Your task to perform on an android device: toggle airplane mode Image 0: 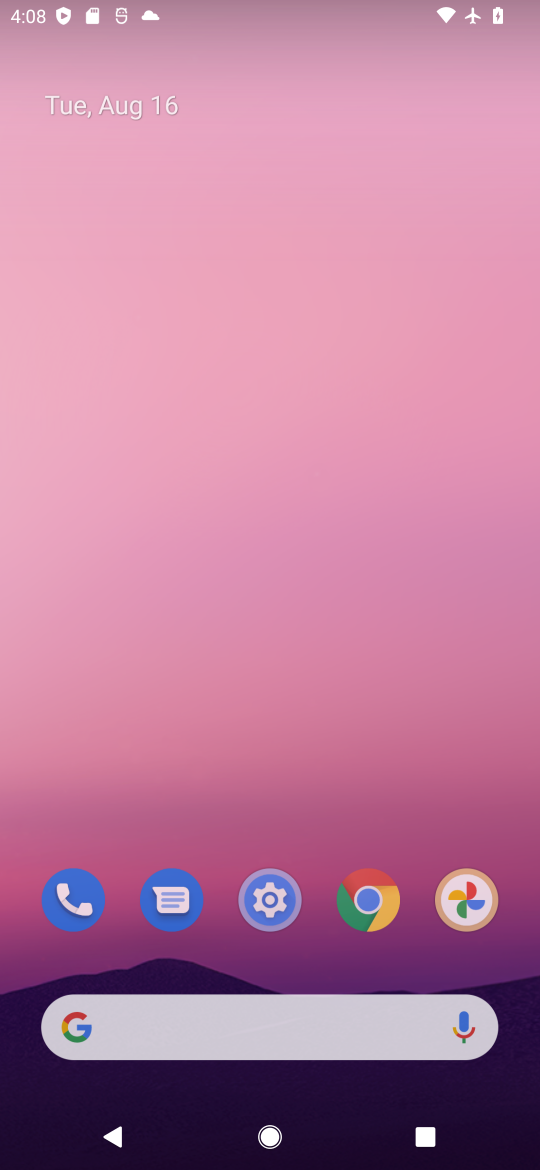
Step 0: press home button
Your task to perform on an android device: toggle airplane mode Image 1: 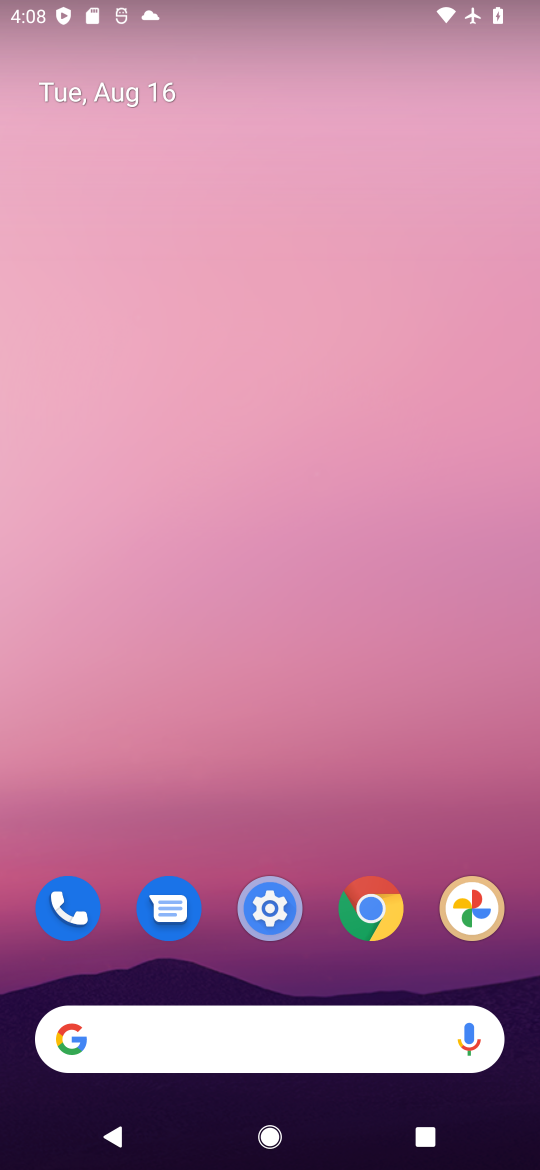
Step 1: drag from (310, 947) to (347, 119)
Your task to perform on an android device: toggle airplane mode Image 2: 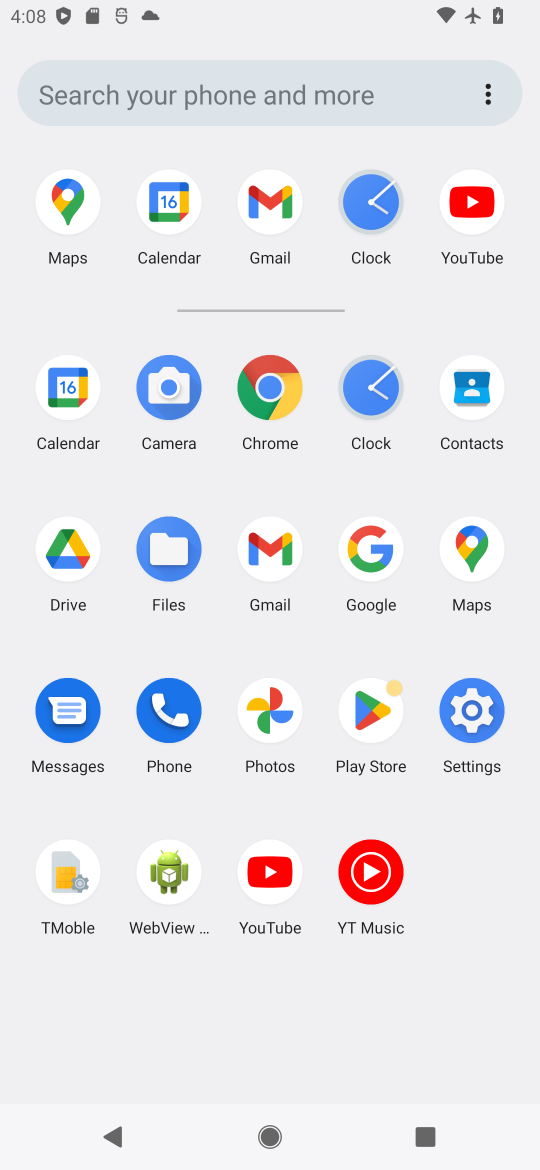
Step 2: click (471, 699)
Your task to perform on an android device: toggle airplane mode Image 3: 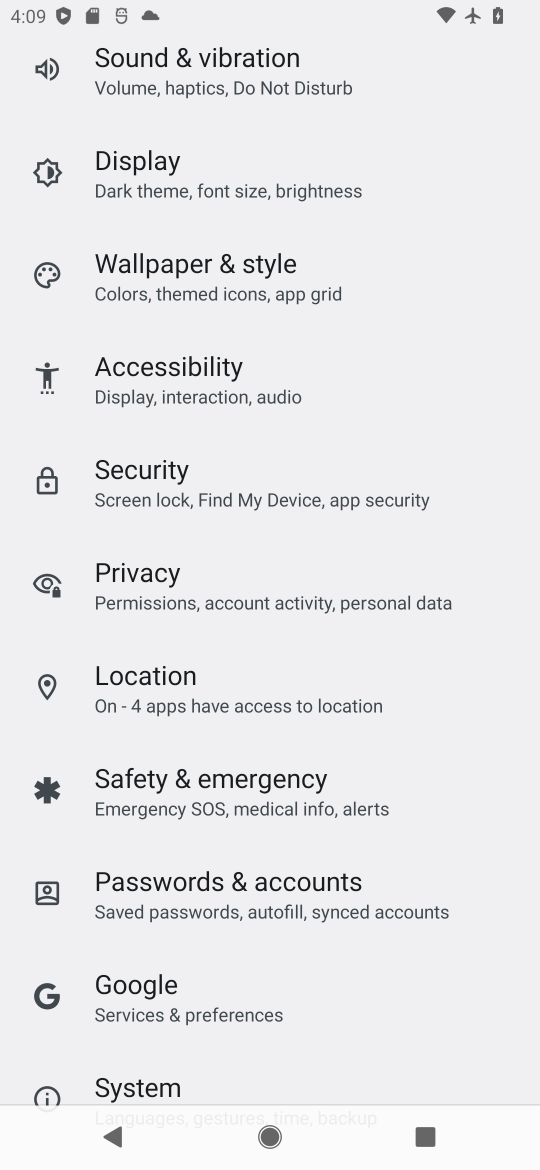
Step 3: drag from (203, 203) to (269, 1133)
Your task to perform on an android device: toggle airplane mode Image 4: 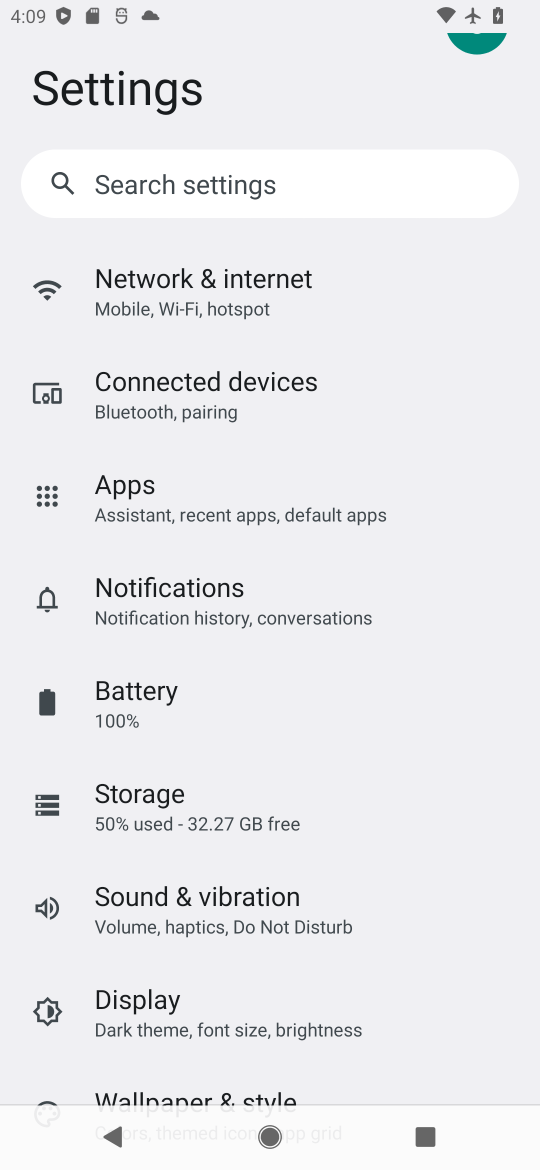
Step 4: click (286, 293)
Your task to perform on an android device: toggle airplane mode Image 5: 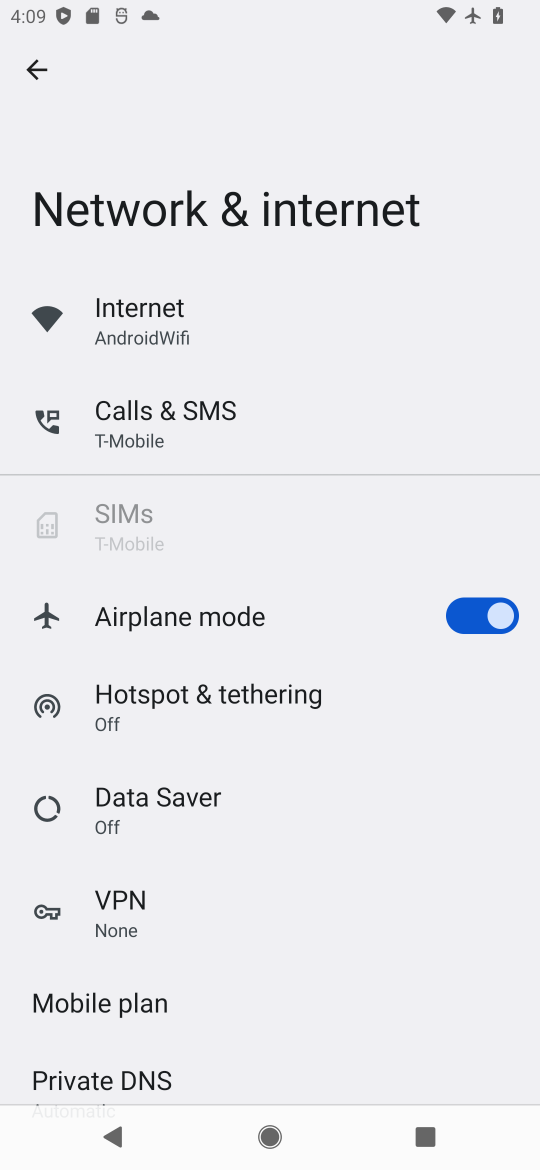
Step 5: click (469, 607)
Your task to perform on an android device: toggle airplane mode Image 6: 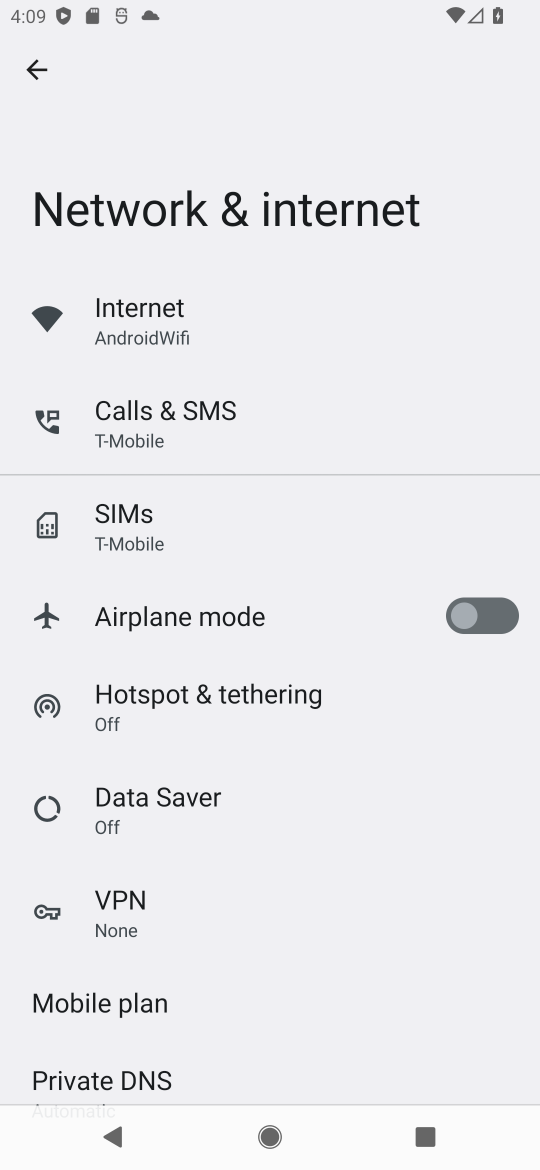
Step 6: task complete